Your task to perform on an android device: Search for flights from San Diego to Seattle Image 0: 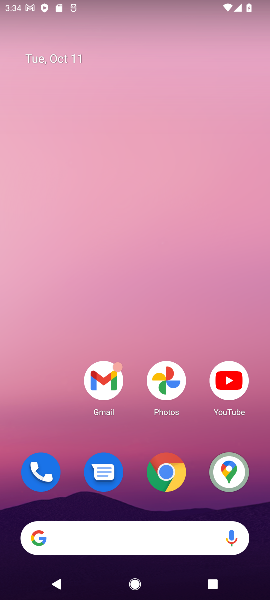
Step 0: drag from (119, 402) to (89, 114)
Your task to perform on an android device: Search for flights from San Diego to Seattle Image 1: 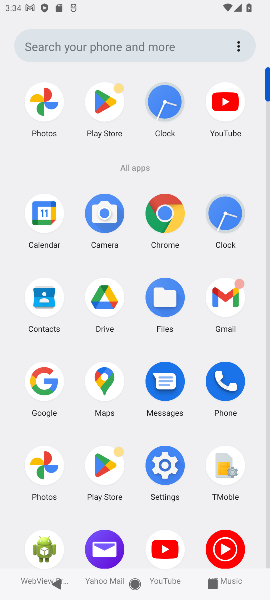
Step 1: click (21, 476)
Your task to perform on an android device: Search for flights from San Diego to Seattle Image 2: 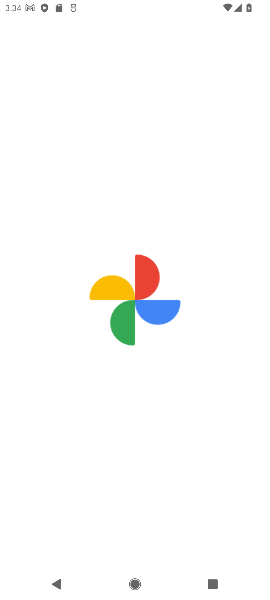
Step 2: click (46, 390)
Your task to perform on an android device: Search for flights from San Diego to Seattle Image 3: 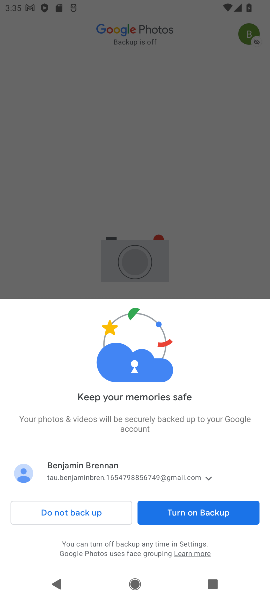
Step 3: click (103, 511)
Your task to perform on an android device: Search for flights from San Diego to Seattle Image 4: 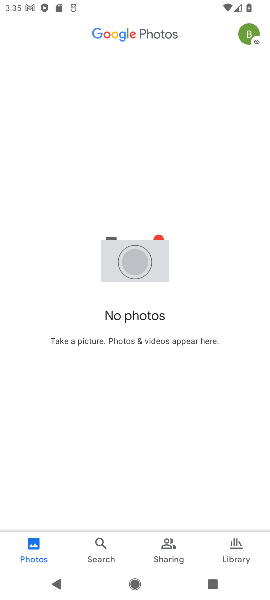
Step 4: press home button
Your task to perform on an android device: Search for flights from San Diego to Seattle Image 5: 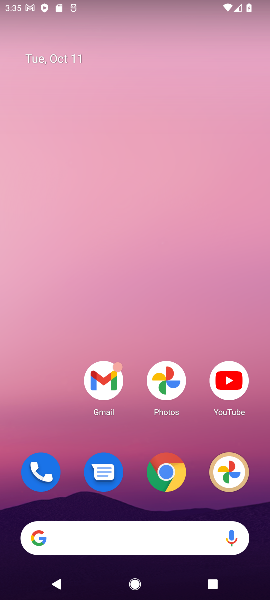
Step 5: click (134, 532)
Your task to perform on an android device: Search for flights from San Diego to Seattle Image 6: 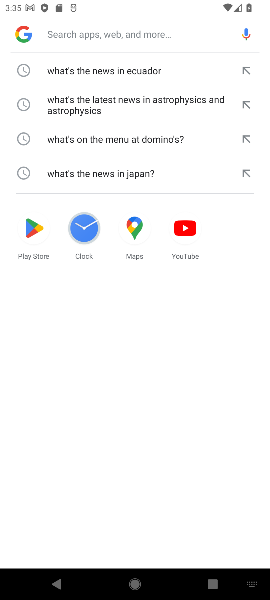
Step 6: type "Search for flights from San Diego to Seattle"
Your task to perform on an android device: Search for flights from San Diego to Seattle Image 7: 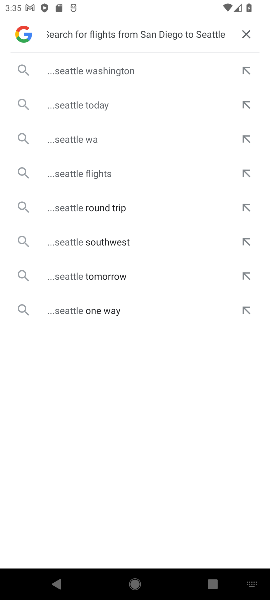
Step 7: click (97, 72)
Your task to perform on an android device: Search for flights from San Diego to Seattle Image 8: 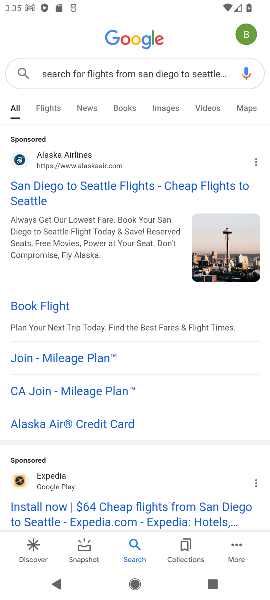
Step 8: task complete